Your task to perform on an android device: turn on data saver in the chrome app Image 0: 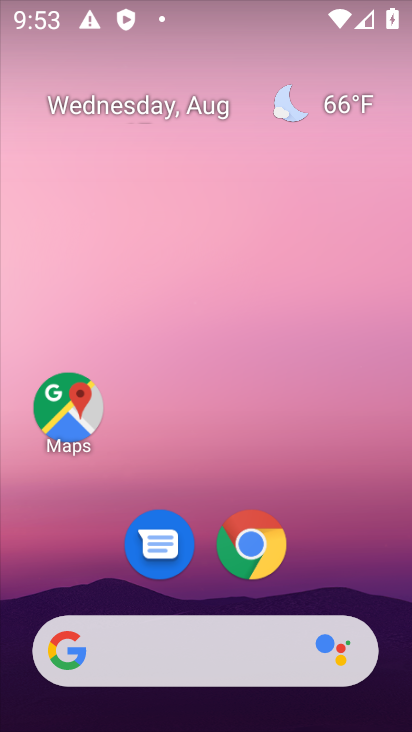
Step 0: click (264, 546)
Your task to perform on an android device: turn on data saver in the chrome app Image 1: 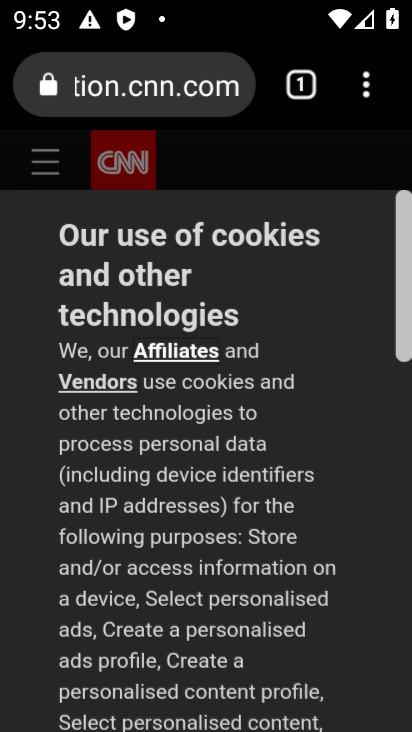
Step 1: task complete